Your task to perform on an android device: allow notifications from all sites in the chrome app Image 0: 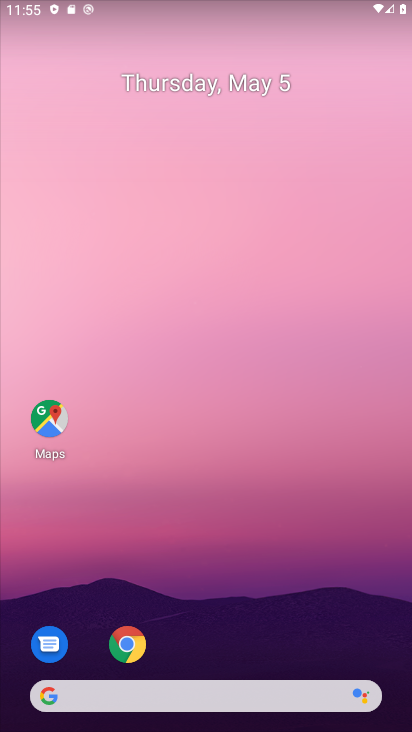
Step 0: click (133, 639)
Your task to perform on an android device: allow notifications from all sites in the chrome app Image 1: 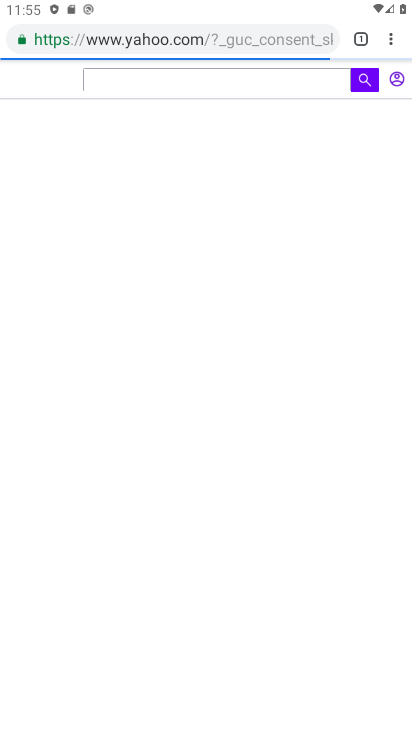
Step 1: click (391, 38)
Your task to perform on an android device: allow notifications from all sites in the chrome app Image 2: 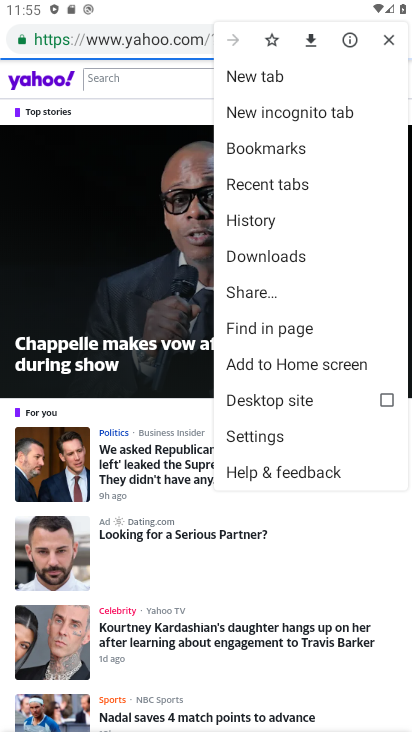
Step 2: click (270, 442)
Your task to perform on an android device: allow notifications from all sites in the chrome app Image 3: 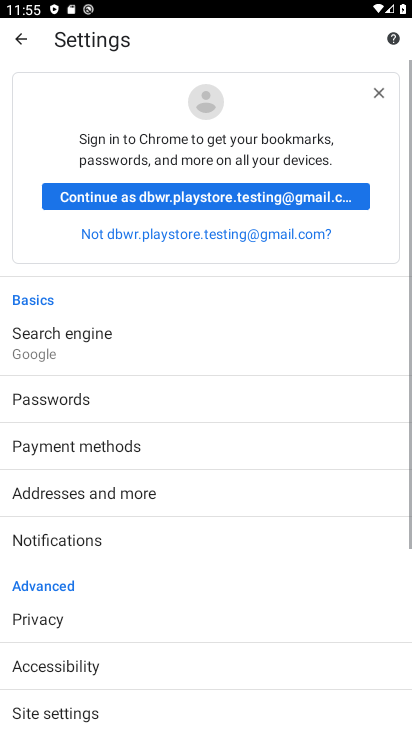
Step 3: drag from (87, 665) to (174, 252)
Your task to perform on an android device: allow notifications from all sites in the chrome app Image 4: 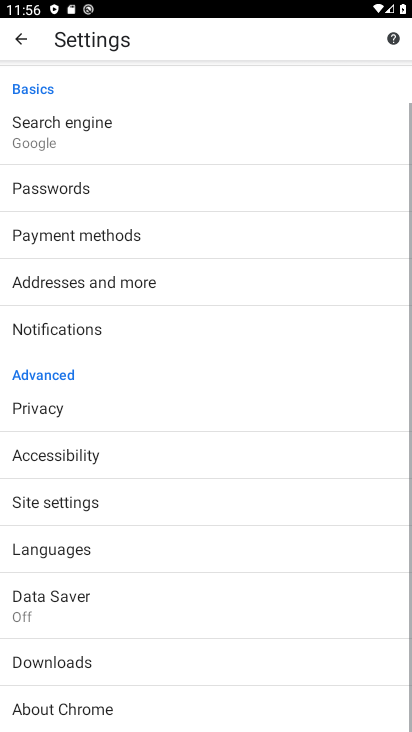
Step 4: click (58, 504)
Your task to perform on an android device: allow notifications from all sites in the chrome app Image 5: 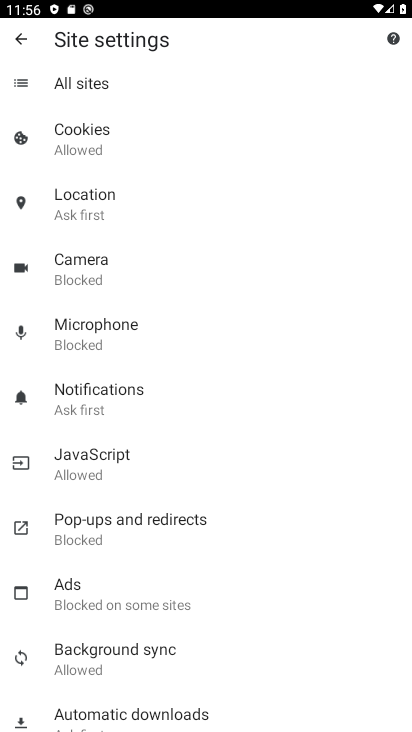
Step 5: click (118, 394)
Your task to perform on an android device: allow notifications from all sites in the chrome app Image 6: 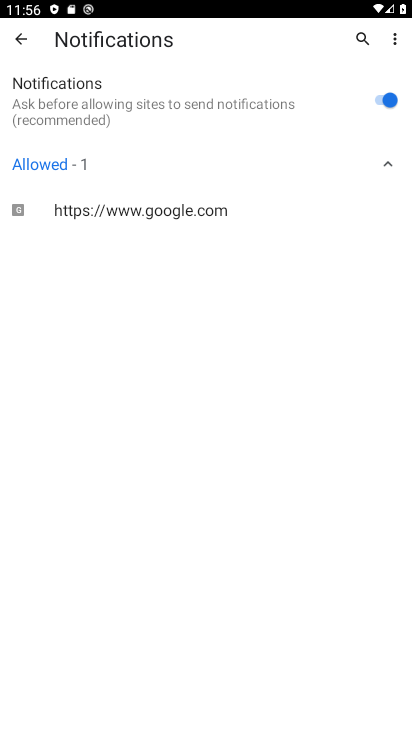
Step 6: click (304, 218)
Your task to perform on an android device: allow notifications from all sites in the chrome app Image 7: 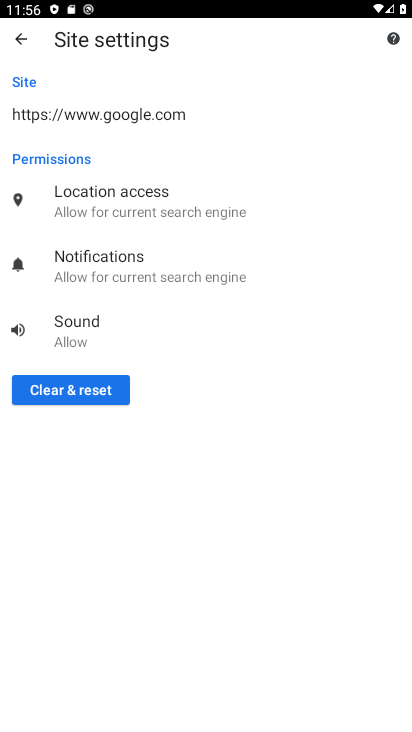
Step 7: click (248, 280)
Your task to perform on an android device: allow notifications from all sites in the chrome app Image 8: 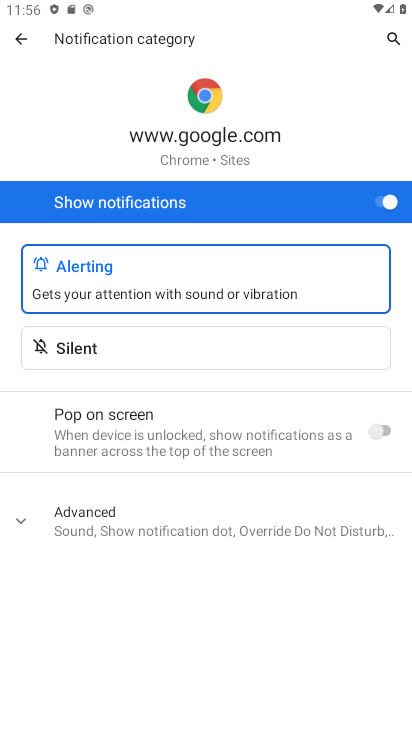
Step 8: task complete